Your task to perform on an android device: find photos in the google photos app Image 0: 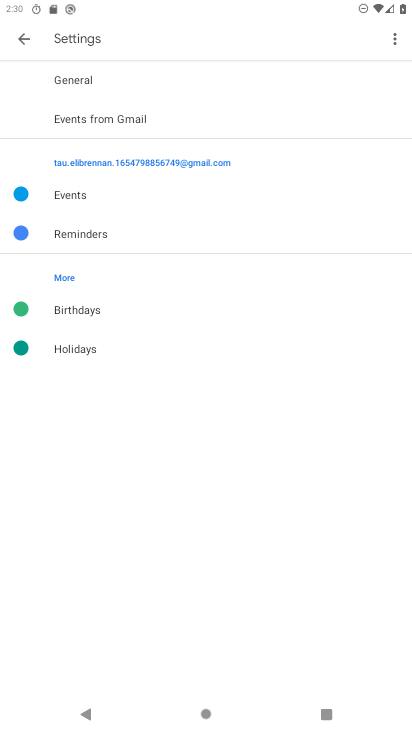
Step 0: press home button
Your task to perform on an android device: find photos in the google photos app Image 1: 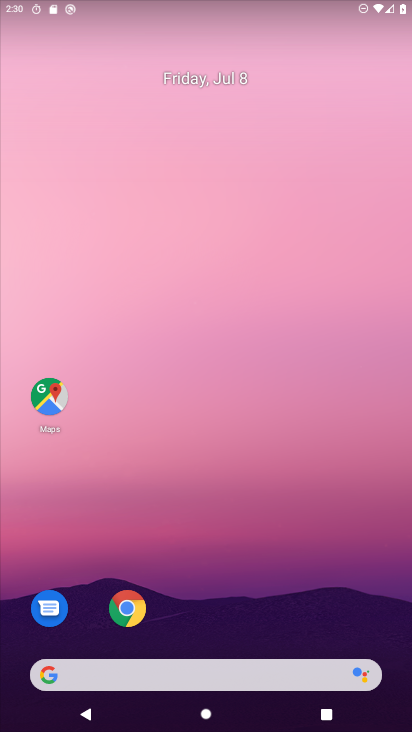
Step 1: drag from (246, 638) to (243, 166)
Your task to perform on an android device: find photos in the google photos app Image 2: 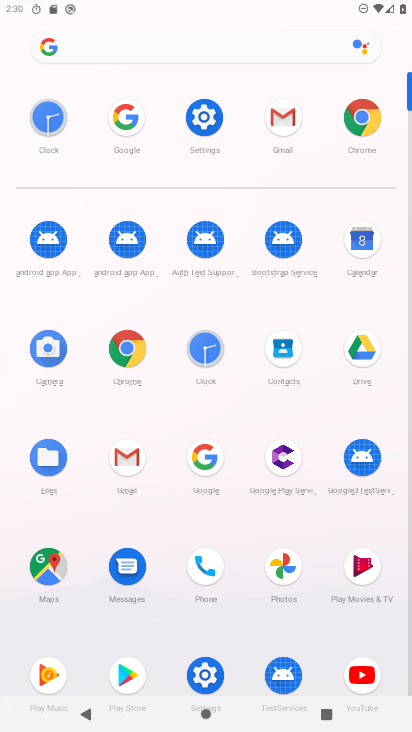
Step 2: click (282, 566)
Your task to perform on an android device: find photos in the google photos app Image 3: 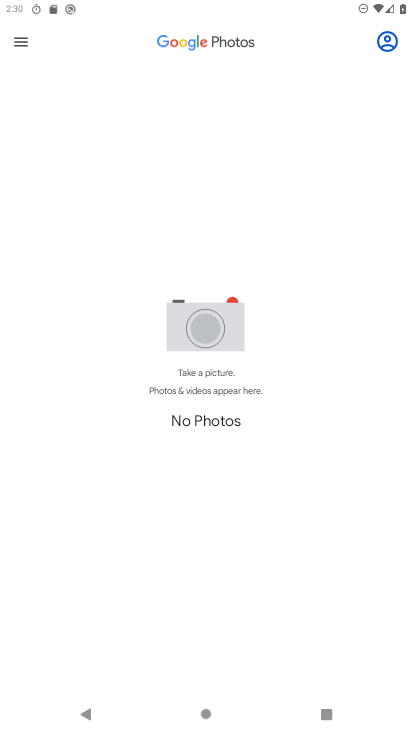
Step 3: task complete